Your task to perform on an android device: Go to Yahoo.com Image 0: 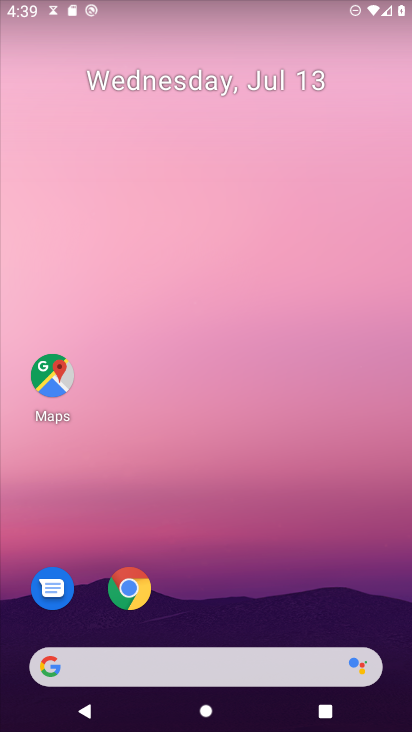
Step 0: drag from (257, 336) to (230, 106)
Your task to perform on an android device: Go to Yahoo.com Image 1: 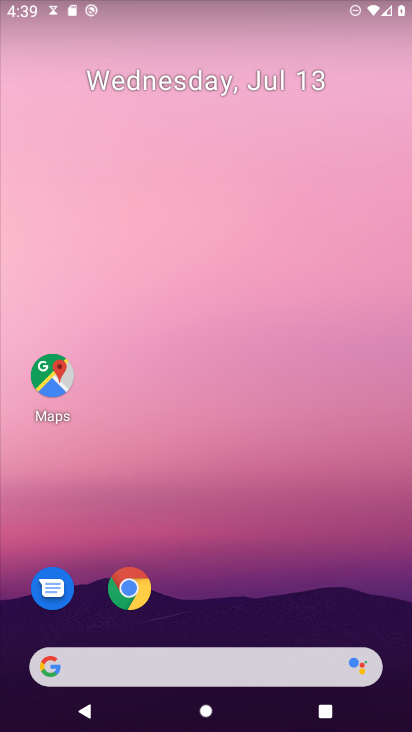
Step 1: drag from (271, 662) to (218, 186)
Your task to perform on an android device: Go to Yahoo.com Image 2: 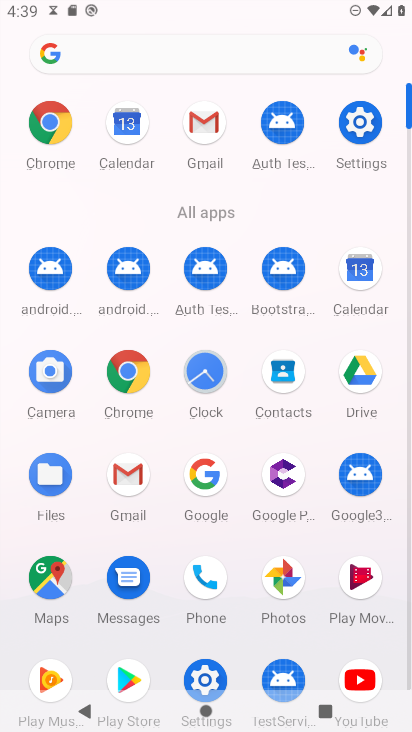
Step 2: click (135, 358)
Your task to perform on an android device: Go to Yahoo.com Image 3: 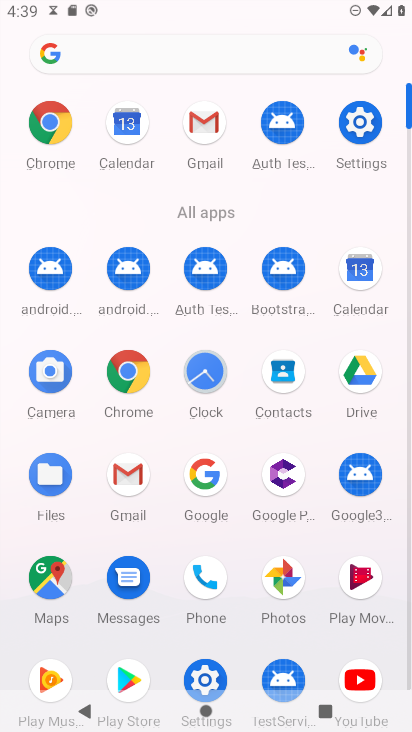
Step 3: click (135, 358)
Your task to perform on an android device: Go to Yahoo.com Image 4: 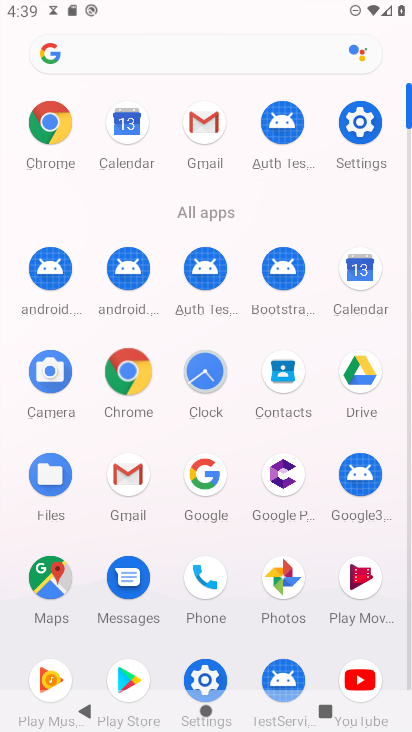
Step 4: click (135, 358)
Your task to perform on an android device: Go to Yahoo.com Image 5: 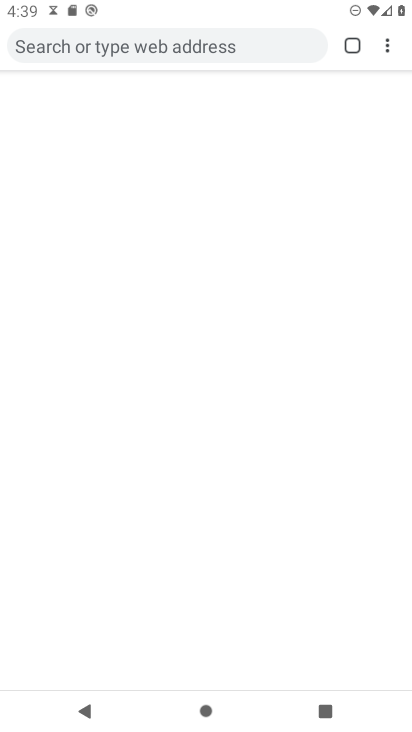
Step 5: click (135, 358)
Your task to perform on an android device: Go to Yahoo.com Image 6: 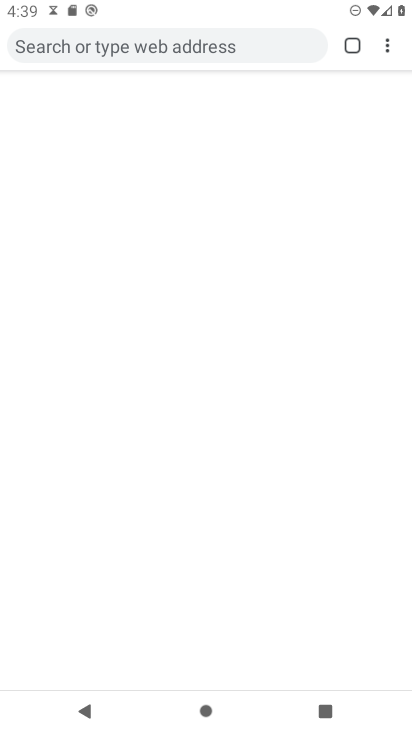
Step 6: click (135, 358)
Your task to perform on an android device: Go to Yahoo.com Image 7: 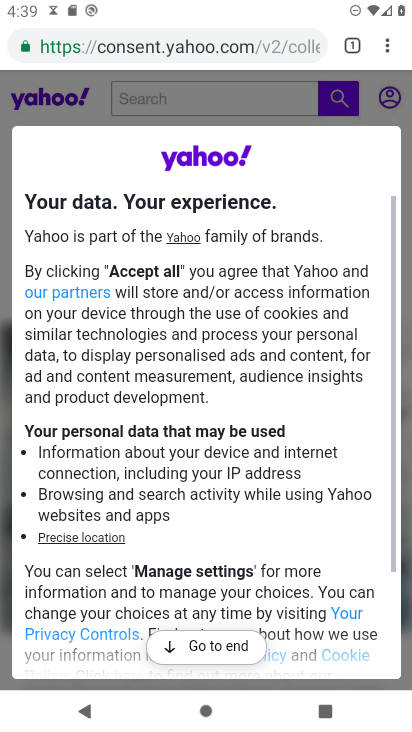
Step 7: task complete